Your task to perform on an android device: choose inbox layout in the gmail app Image 0: 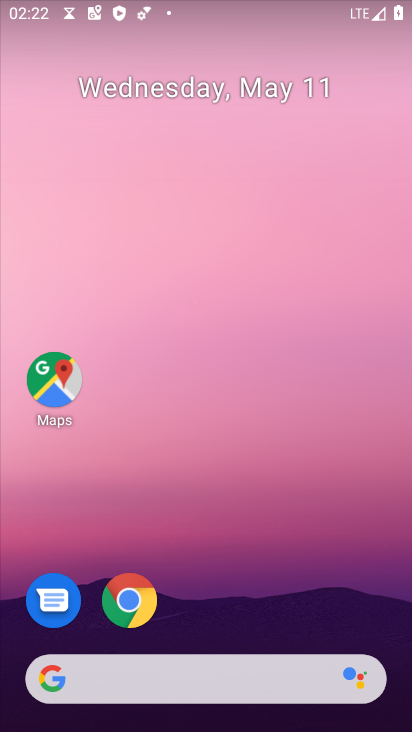
Step 0: drag from (273, 605) to (318, 325)
Your task to perform on an android device: choose inbox layout in the gmail app Image 1: 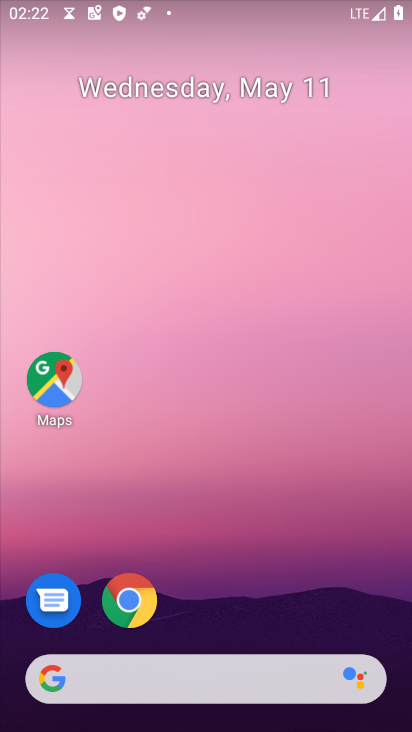
Step 1: drag from (259, 598) to (306, 277)
Your task to perform on an android device: choose inbox layout in the gmail app Image 2: 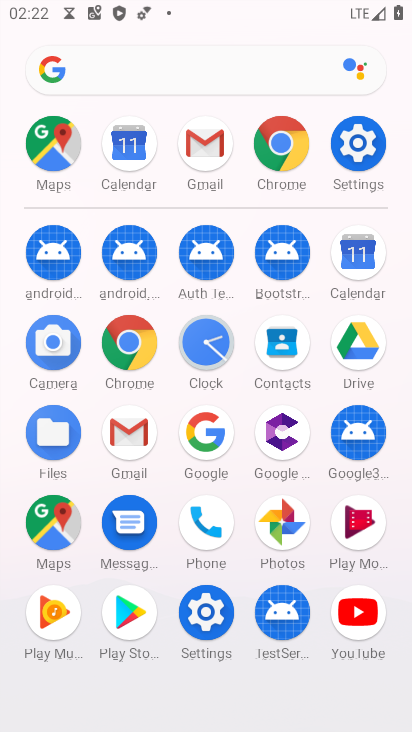
Step 2: click (138, 421)
Your task to perform on an android device: choose inbox layout in the gmail app Image 3: 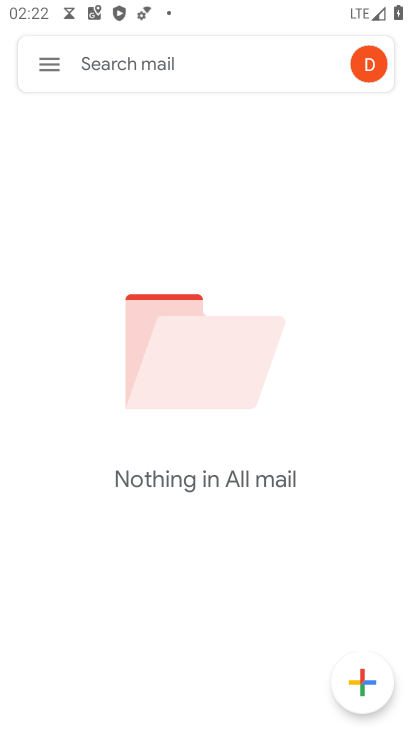
Step 3: click (47, 67)
Your task to perform on an android device: choose inbox layout in the gmail app Image 4: 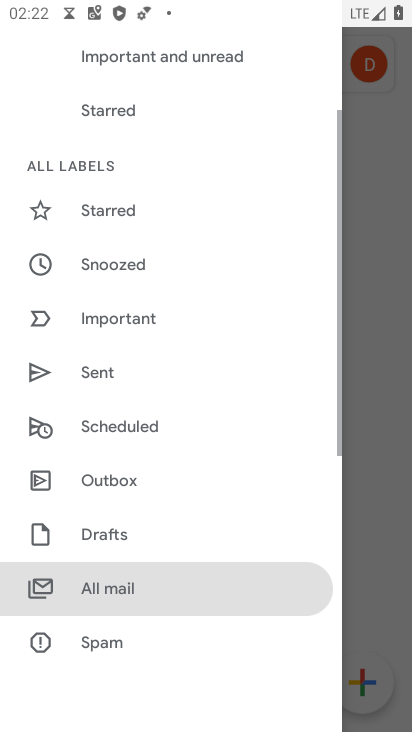
Step 4: drag from (137, 628) to (234, 202)
Your task to perform on an android device: choose inbox layout in the gmail app Image 5: 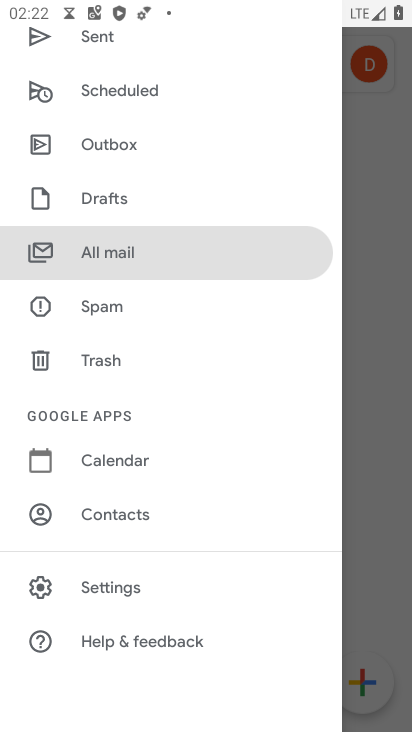
Step 5: click (125, 591)
Your task to perform on an android device: choose inbox layout in the gmail app Image 6: 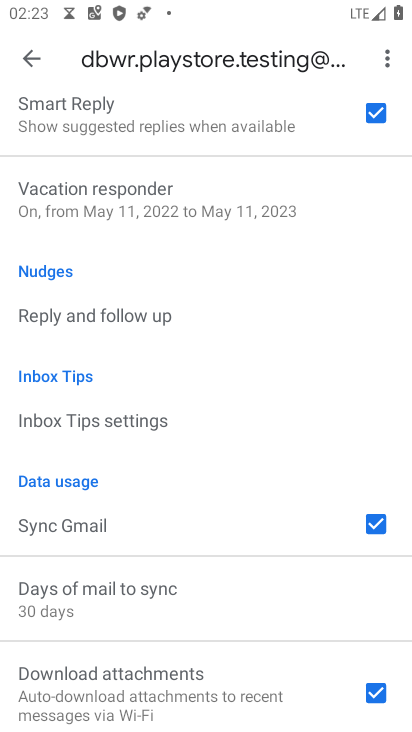
Step 6: drag from (121, 136) to (155, 465)
Your task to perform on an android device: choose inbox layout in the gmail app Image 7: 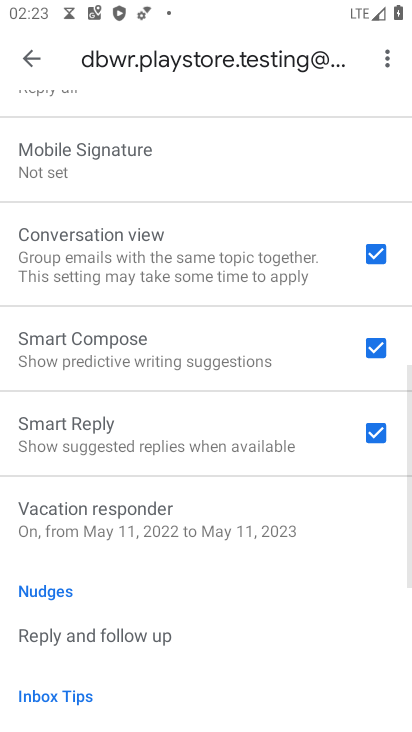
Step 7: drag from (143, 167) to (151, 531)
Your task to perform on an android device: choose inbox layout in the gmail app Image 8: 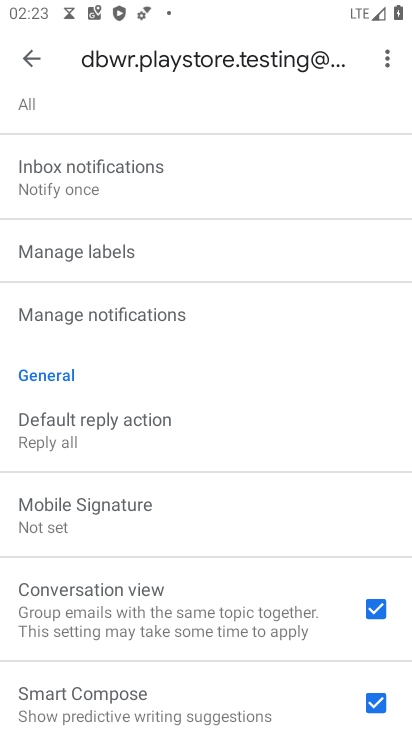
Step 8: click (78, 172)
Your task to perform on an android device: choose inbox layout in the gmail app Image 9: 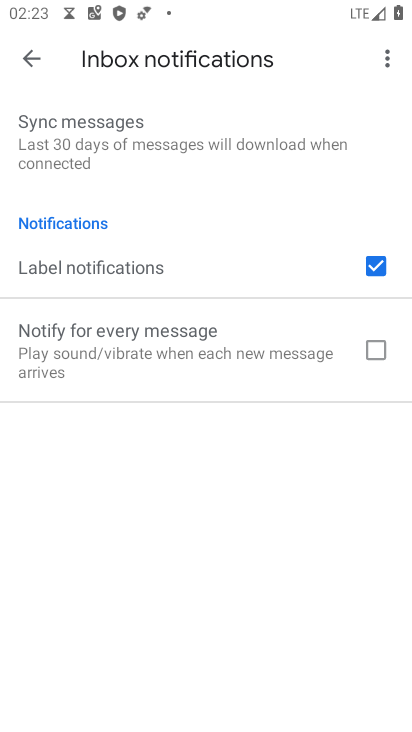
Step 9: click (41, 43)
Your task to perform on an android device: choose inbox layout in the gmail app Image 10: 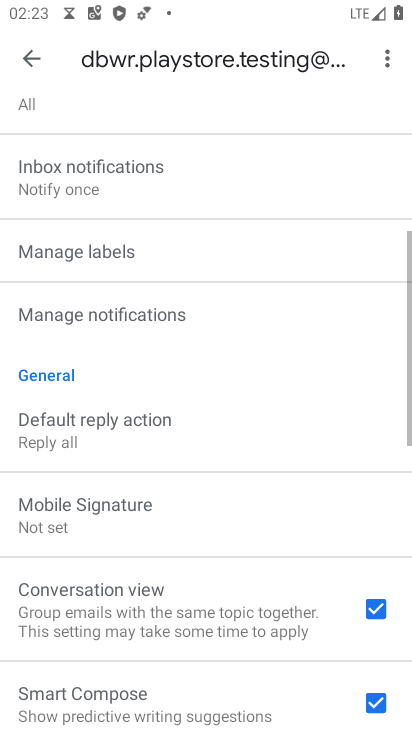
Step 10: drag from (109, 137) to (121, 500)
Your task to perform on an android device: choose inbox layout in the gmail app Image 11: 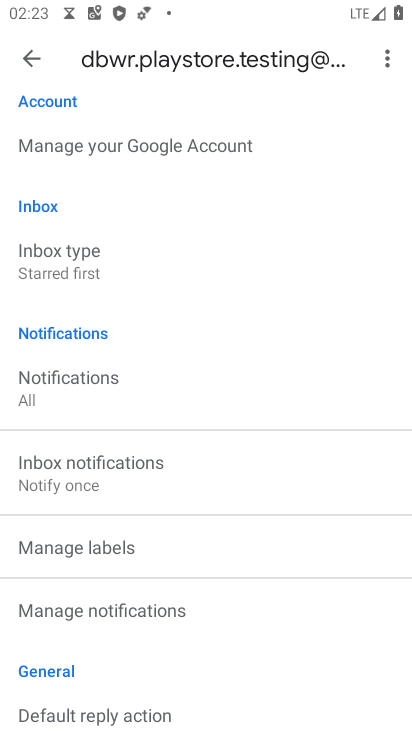
Step 11: click (62, 259)
Your task to perform on an android device: choose inbox layout in the gmail app Image 12: 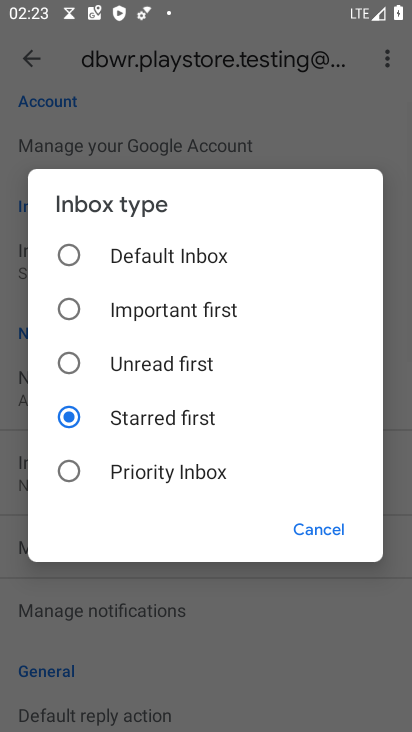
Step 12: click (165, 368)
Your task to perform on an android device: choose inbox layout in the gmail app Image 13: 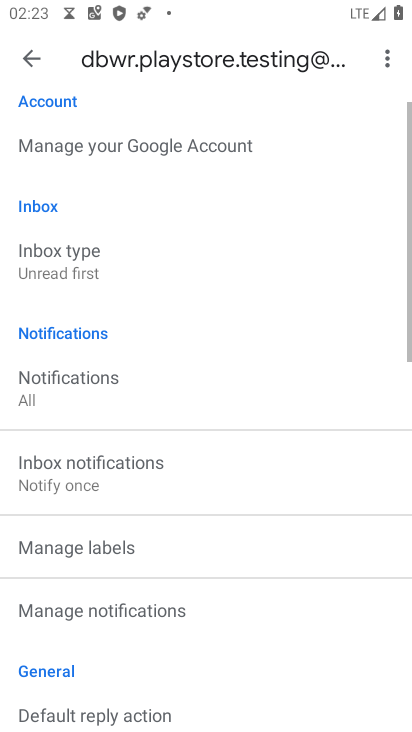
Step 13: task complete